Your task to perform on an android device: Open Google Chrome and click the shortcut for Amazon.com Image 0: 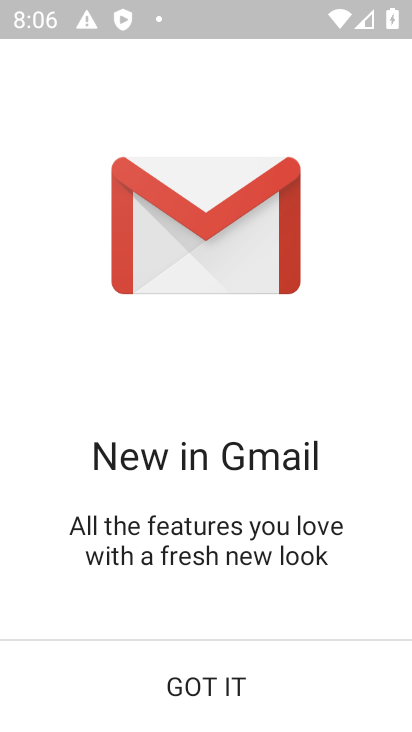
Step 0: press home button
Your task to perform on an android device: Open Google Chrome and click the shortcut for Amazon.com Image 1: 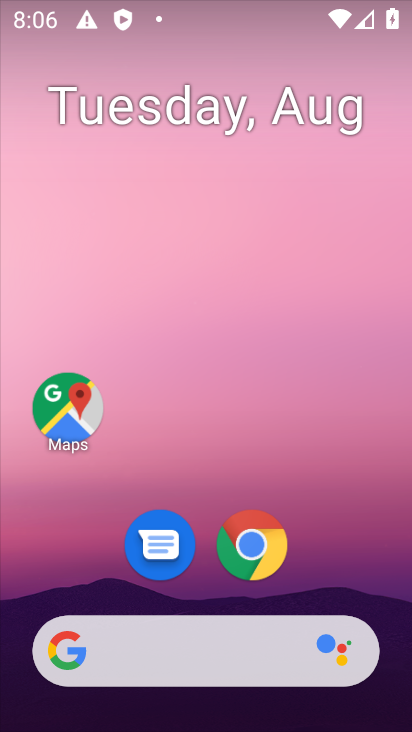
Step 1: click (250, 546)
Your task to perform on an android device: Open Google Chrome and click the shortcut for Amazon.com Image 2: 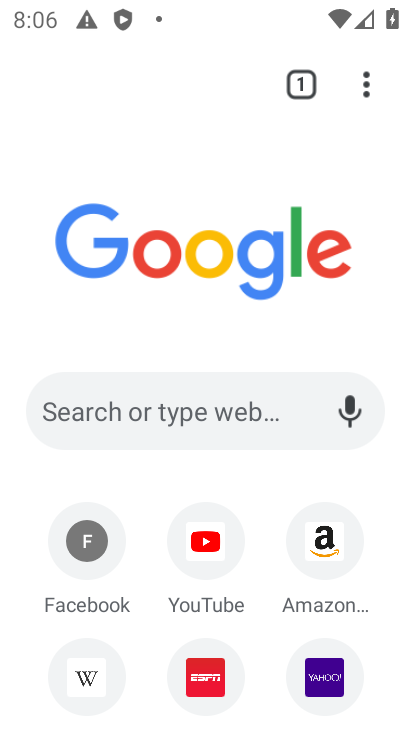
Step 2: click (318, 530)
Your task to perform on an android device: Open Google Chrome and click the shortcut for Amazon.com Image 3: 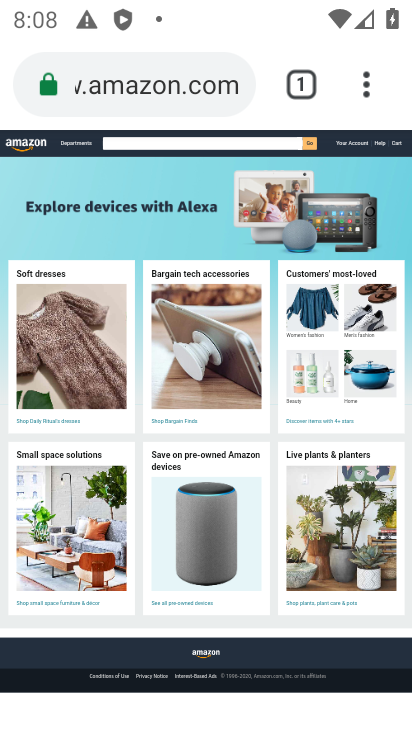
Step 3: task complete